Your task to perform on an android device: set the timer Image 0: 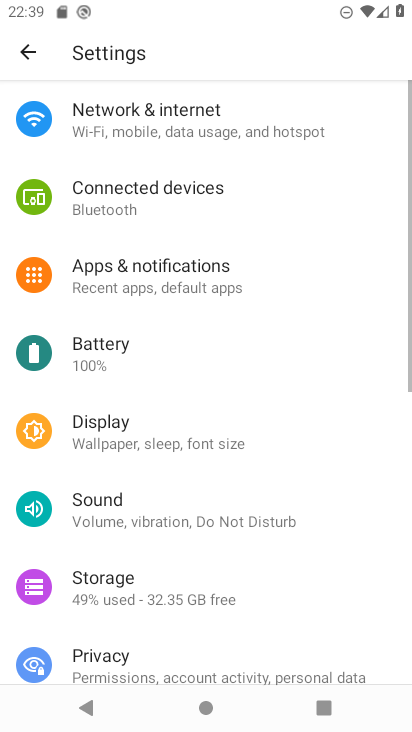
Step 0: press home button
Your task to perform on an android device: set the timer Image 1: 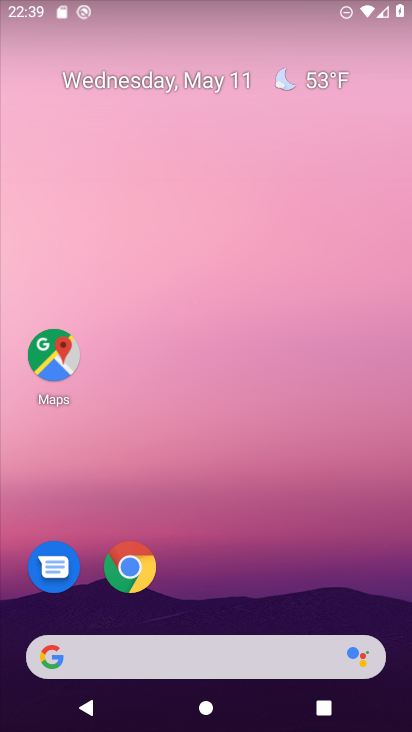
Step 1: drag from (278, 701) to (258, 80)
Your task to perform on an android device: set the timer Image 2: 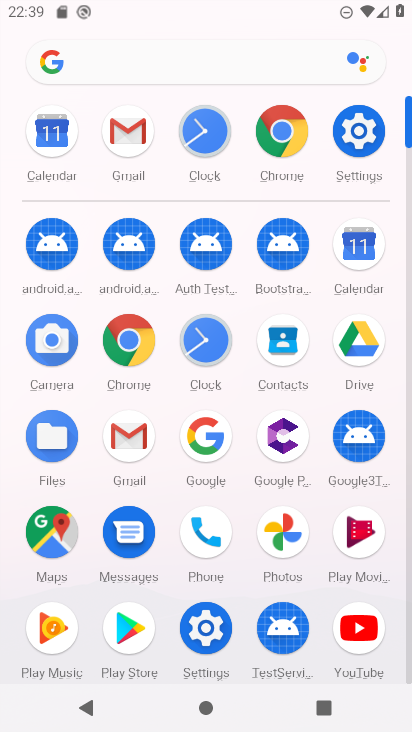
Step 2: click (204, 344)
Your task to perform on an android device: set the timer Image 3: 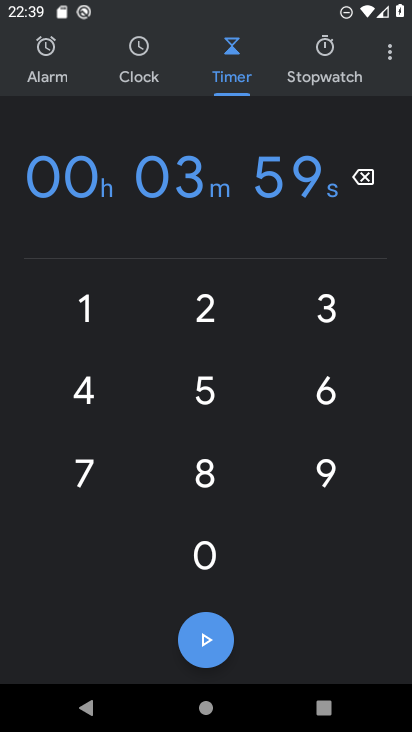
Step 3: click (193, 310)
Your task to perform on an android device: set the timer Image 4: 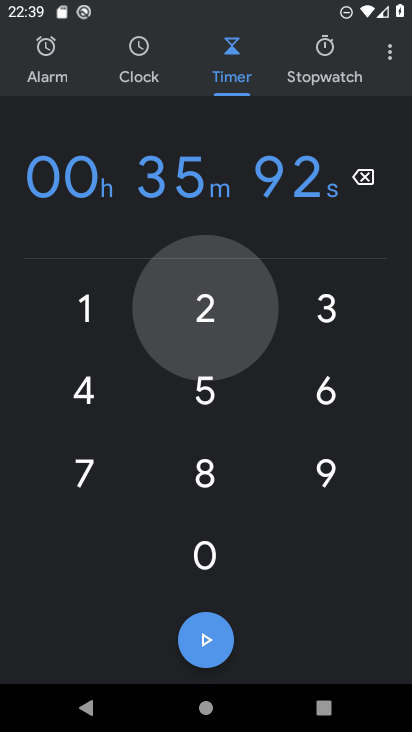
Step 4: click (203, 404)
Your task to perform on an android device: set the timer Image 5: 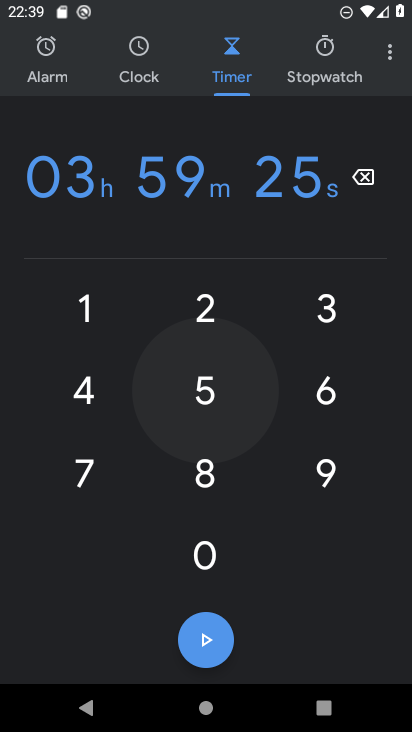
Step 5: click (210, 499)
Your task to perform on an android device: set the timer Image 6: 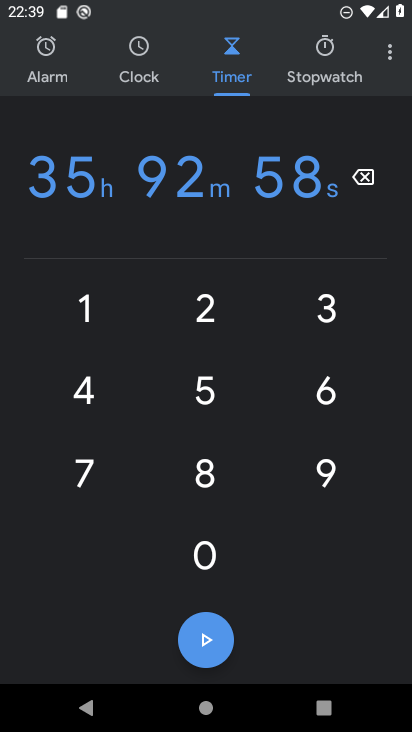
Step 6: task complete